Your task to perform on an android device: allow cookies in the chrome app Image 0: 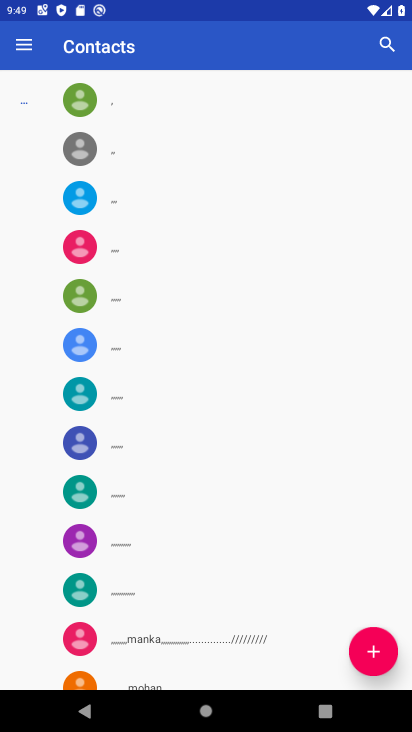
Step 0: press home button
Your task to perform on an android device: allow cookies in the chrome app Image 1: 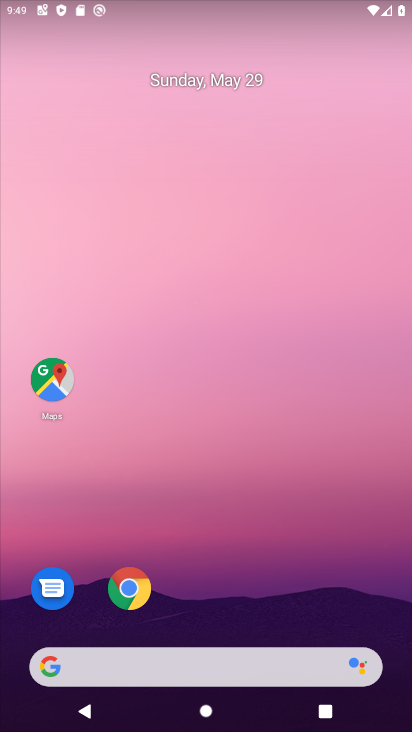
Step 1: drag from (287, 611) to (254, 141)
Your task to perform on an android device: allow cookies in the chrome app Image 2: 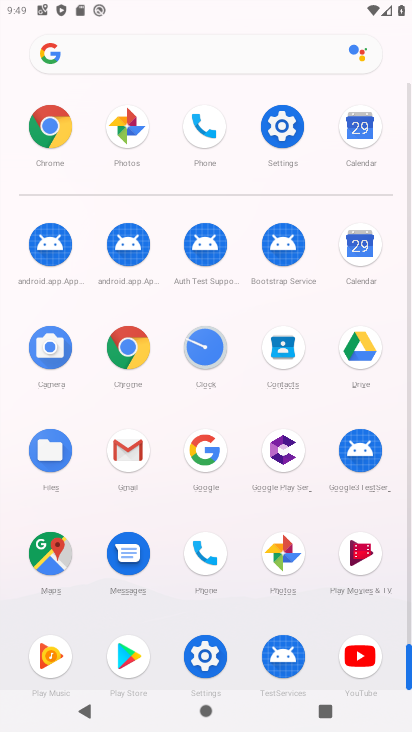
Step 2: click (148, 352)
Your task to perform on an android device: allow cookies in the chrome app Image 3: 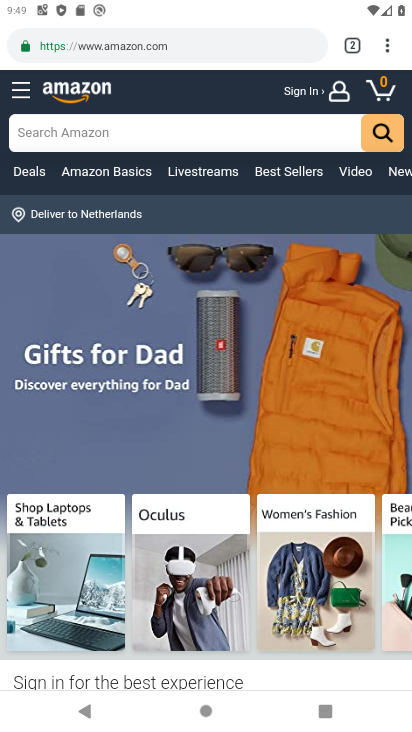
Step 3: click (382, 52)
Your task to perform on an android device: allow cookies in the chrome app Image 4: 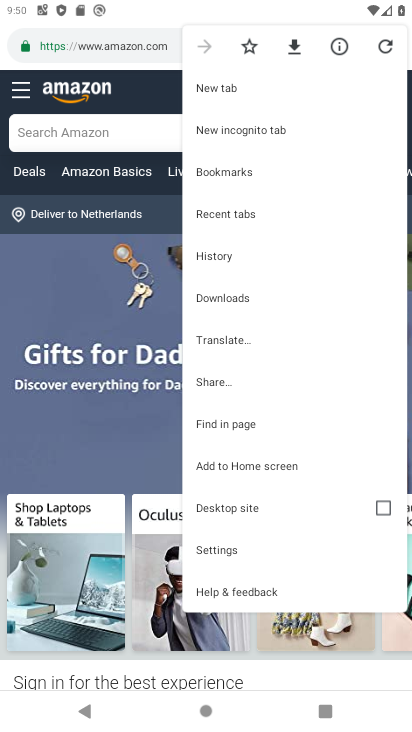
Step 4: click (262, 554)
Your task to perform on an android device: allow cookies in the chrome app Image 5: 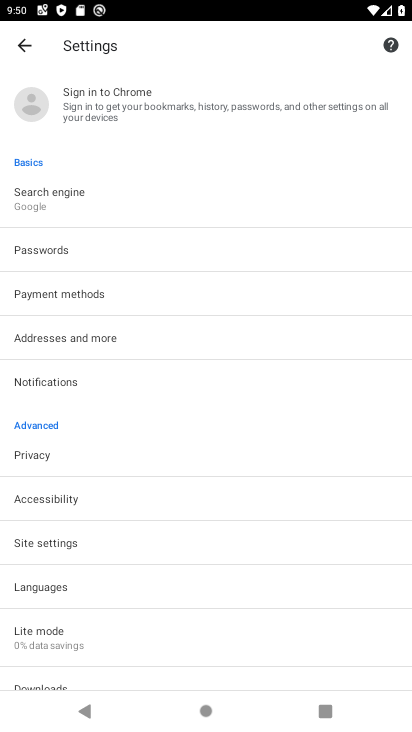
Step 5: press back button
Your task to perform on an android device: allow cookies in the chrome app Image 6: 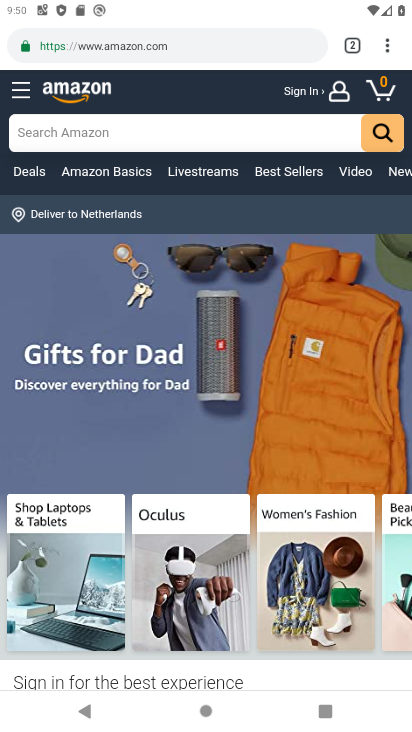
Step 6: click (384, 49)
Your task to perform on an android device: allow cookies in the chrome app Image 7: 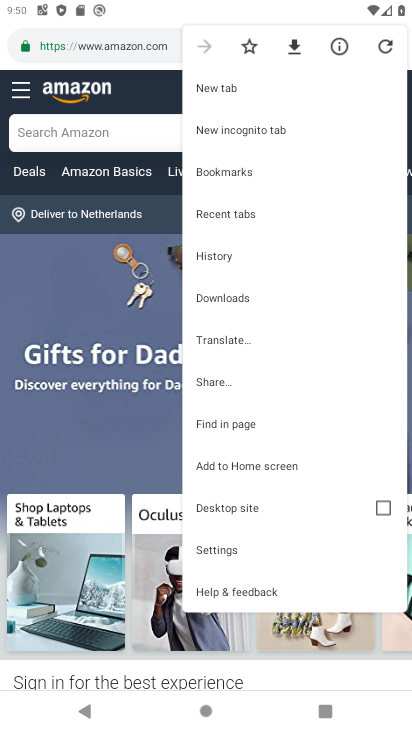
Step 7: click (252, 550)
Your task to perform on an android device: allow cookies in the chrome app Image 8: 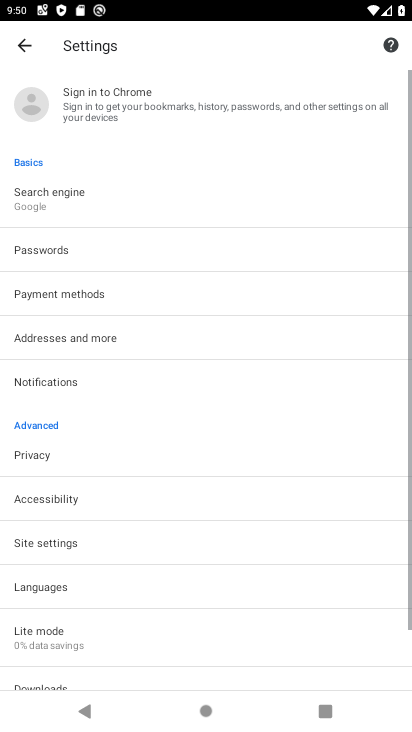
Step 8: drag from (149, 558) to (174, 376)
Your task to perform on an android device: allow cookies in the chrome app Image 9: 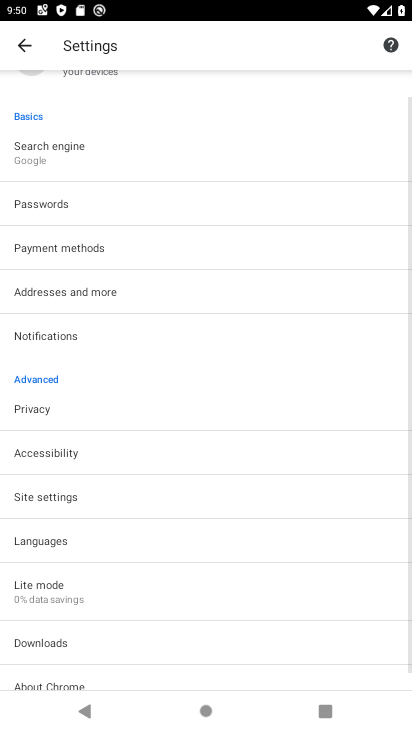
Step 9: click (124, 487)
Your task to perform on an android device: allow cookies in the chrome app Image 10: 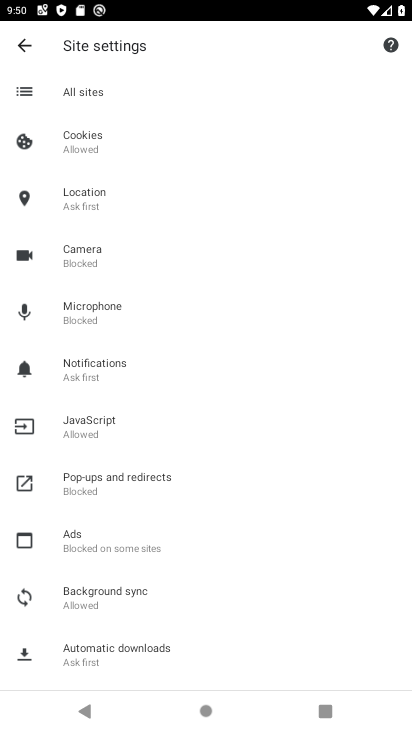
Step 10: click (133, 147)
Your task to perform on an android device: allow cookies in the chrome app Image 11: 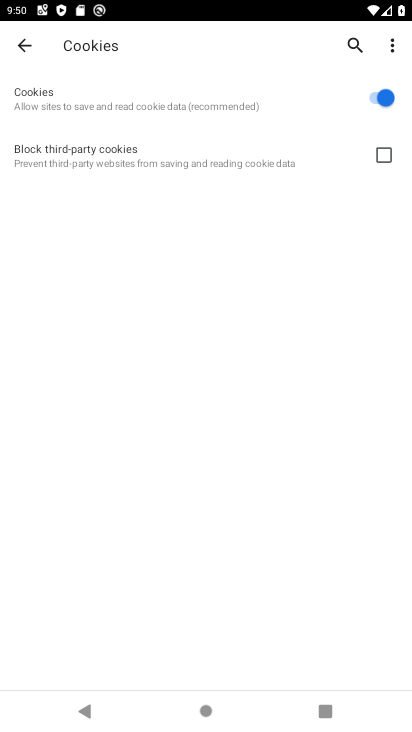
Step 11: task complete